Your task to perform on an android device: turn off airplane mode Image 0: 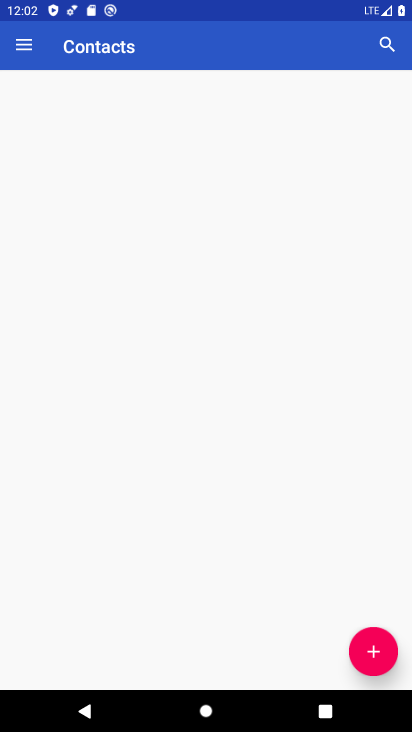
Step 0: press home button
Your task to perform on an android device: turn off airplane mode Image 1: 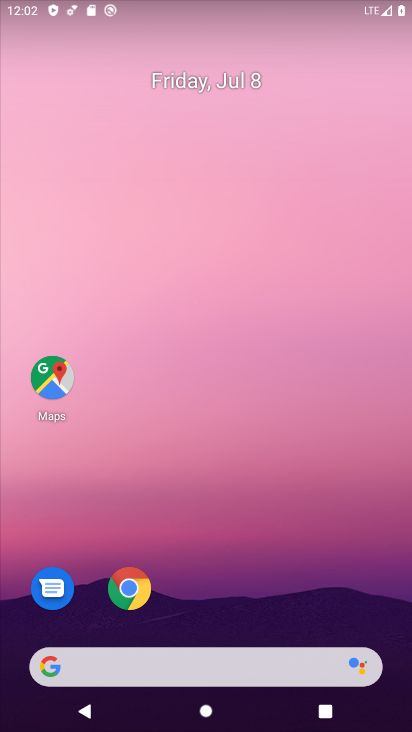
Step 1: task complete